Your task to perform on an android device: What's the weather today? Image 0: 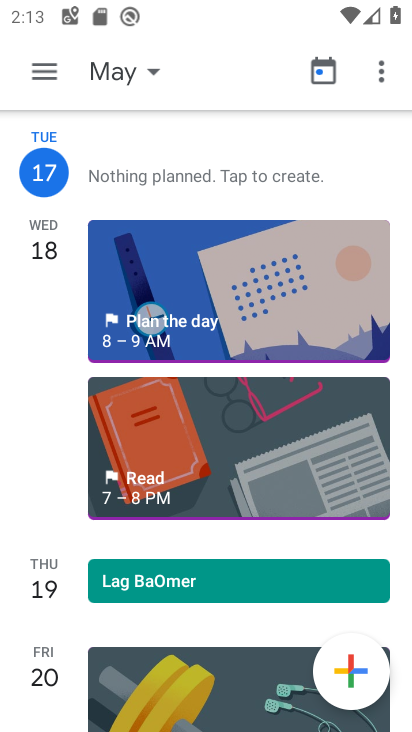
Step 0: press home button
Your task to perform on an android device: What's the weather today? Image 1: 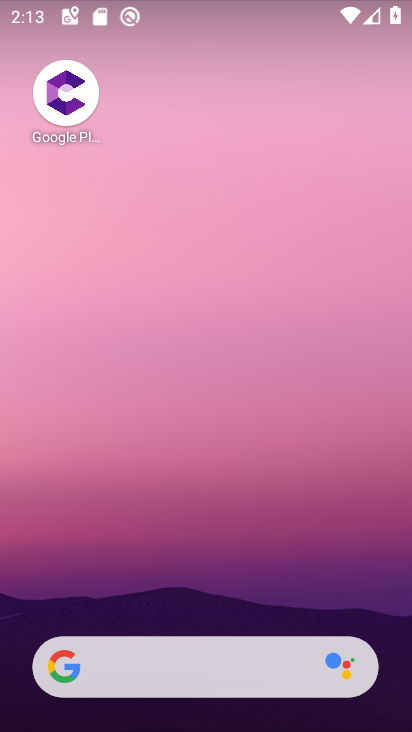
Step 1: drag from (257, 629) to (190, 174)
Your task to perform on an android device: What's the weather today? Image 2: 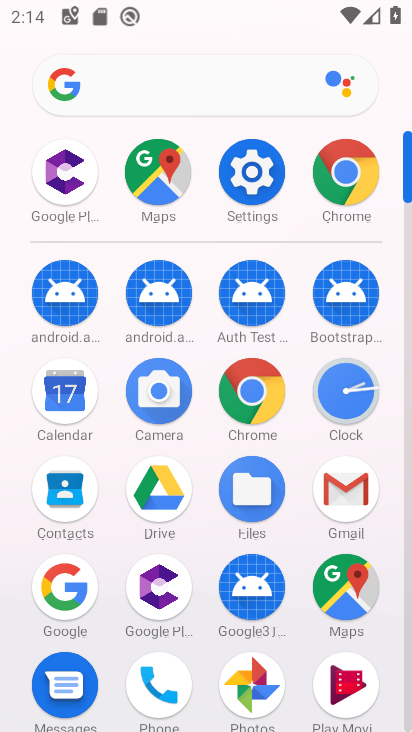
Step 2: click (69, 573)
Your task to perform on an android device: What's the weather today? Image 3: 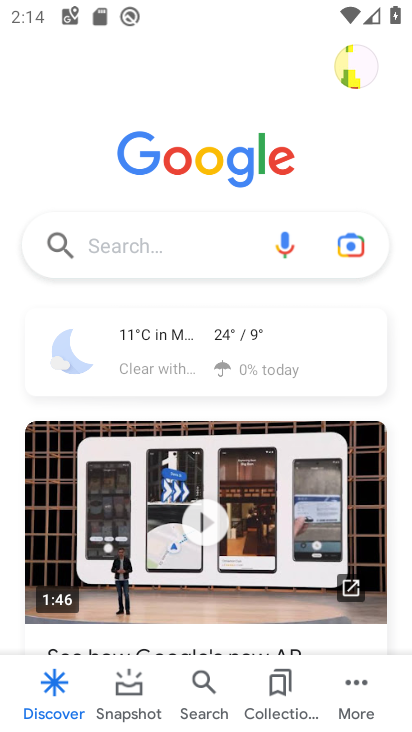
Step 3: click (166, 365)
Your task to perform on an android device: What's the weather today? Image 4: 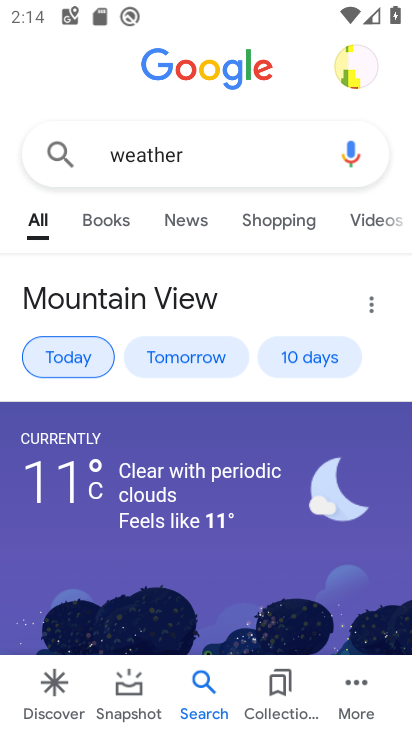
Step 4: press back button
Your task to perform on an android device: What's the weather today? Image 5: 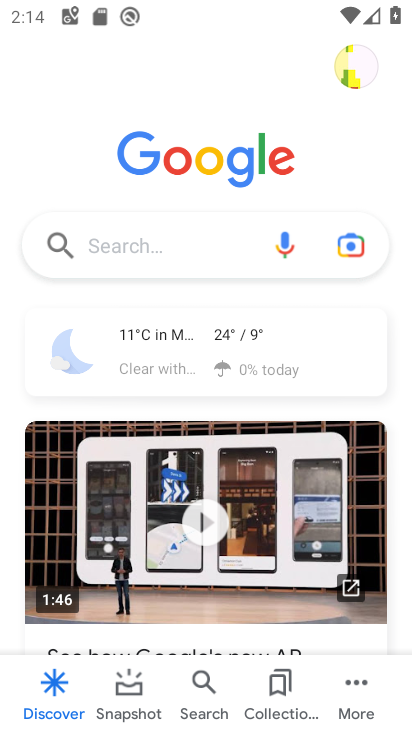
Step 5: press back button
Your task to perform on an android device: What's the weather today? Image 6: 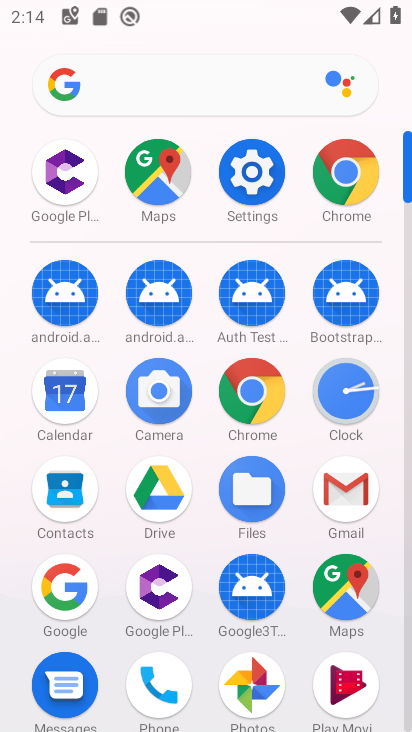
Step 6: click (48, 600)
Your task to perform on an android device: What's the weather today? Image 7: 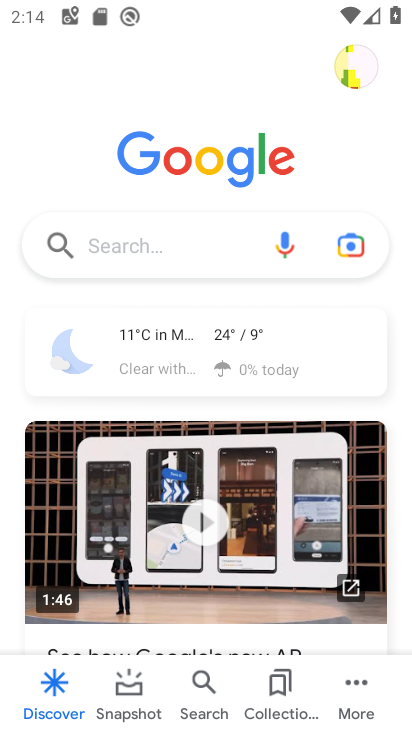
Step 7: click (282, 380)
Your task to perform on an android device: What's the weather today? Image 8: 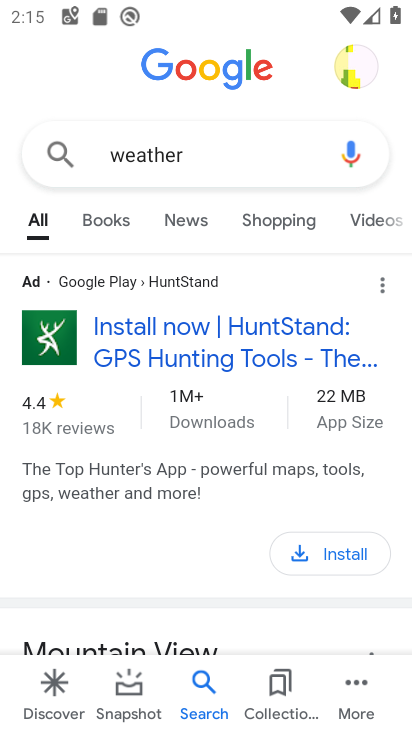
Step 8: task complete